Your task to perform on an android device: Open Yahoo.com Image 0: 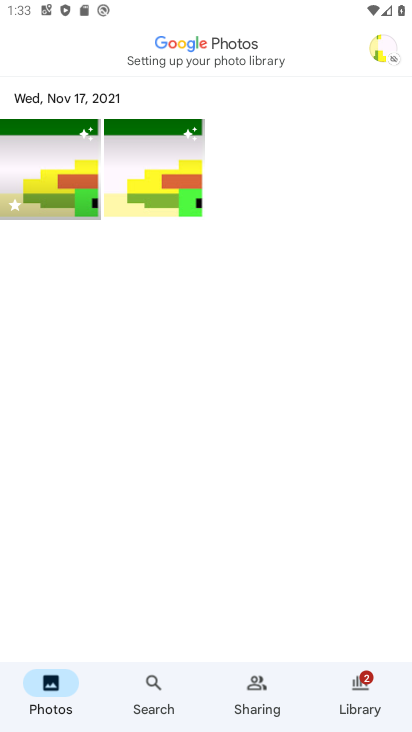
Step 0: press home button
Your task to perform on an android device: Open Yahoo.com Image 1: 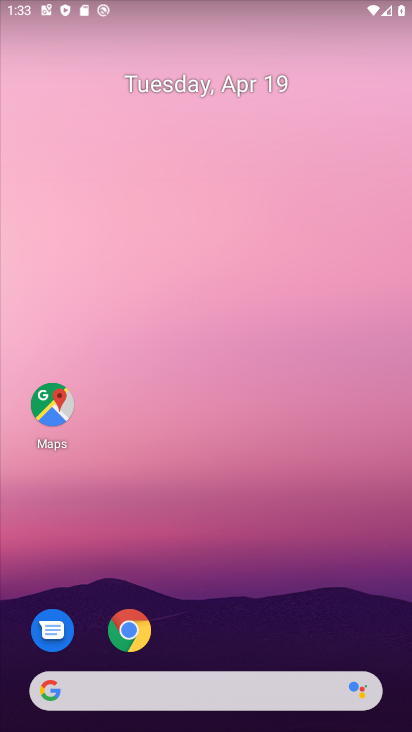
Step 1: click (133, 629)
Your task to perform on an android device: Open Yahoo.com Image 2: 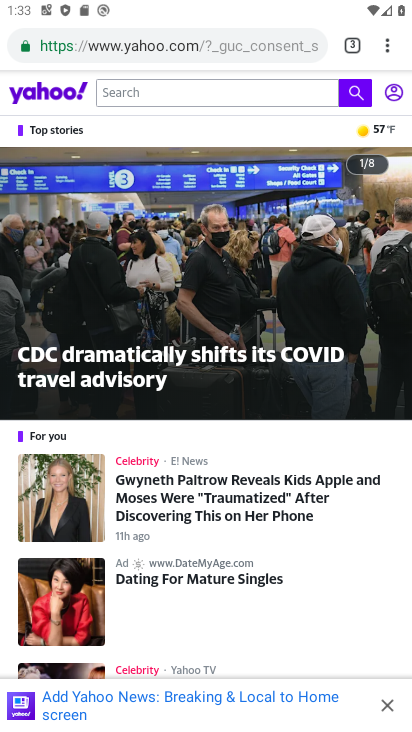
Step 2: task complete